Your task to perform on an android device: Go to wifi settings Image 0: 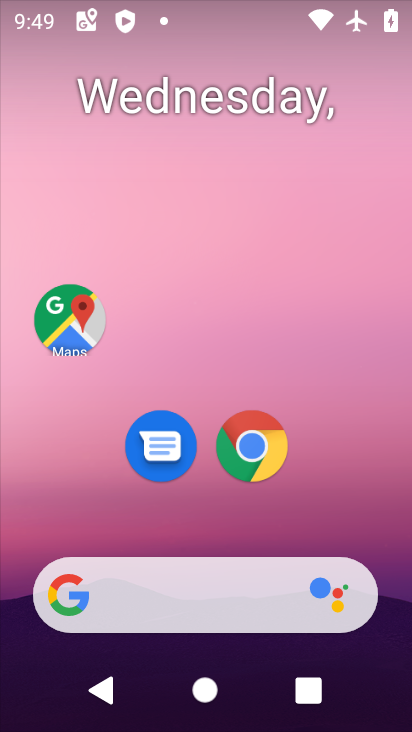
Step 0: press home button
Your task to perform on an android device: Go to wifi settings Image 1: 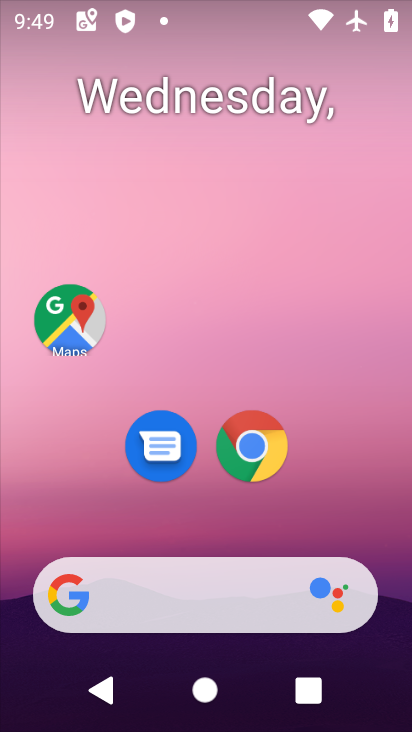
Step 1: drag from (163, 604) to (352, 63)
Your task to perform on an android device: Go to wifi settings Image 2: 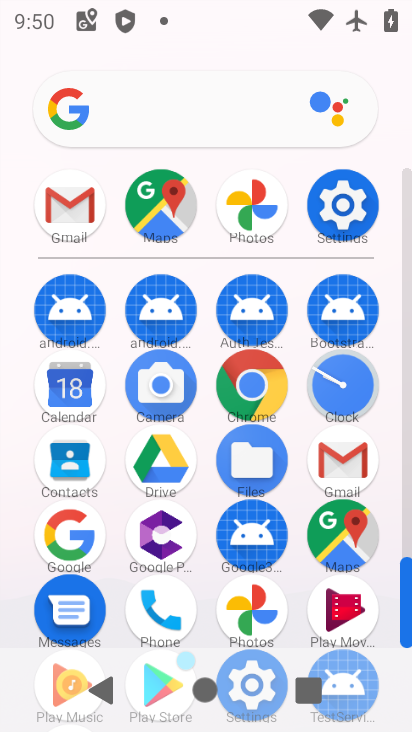
Step 2: click (340, 200)
Your task to perform on an android device: Go to wifi settings Image 3: 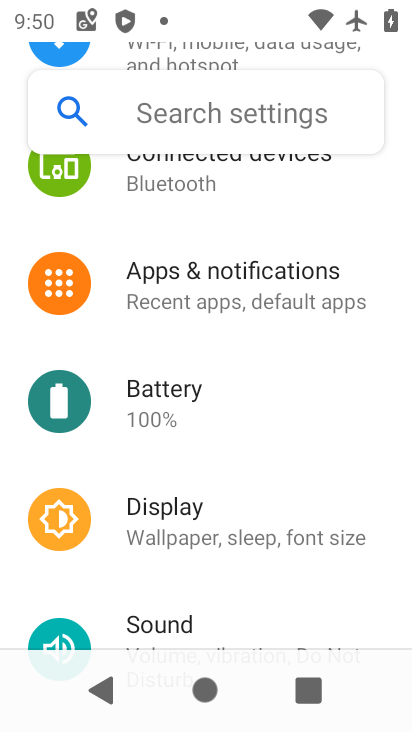
Step 3: drag from (330, 195) to (276, 595)
Your task to perform on an android device: Go to wifi settings Image 4: 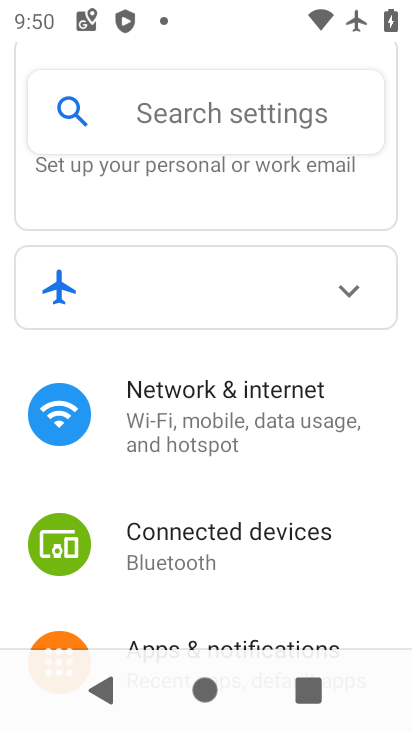
Step 4: click (242, 412)
Your task to perform on an android device: Go to wifi settings Image 5: 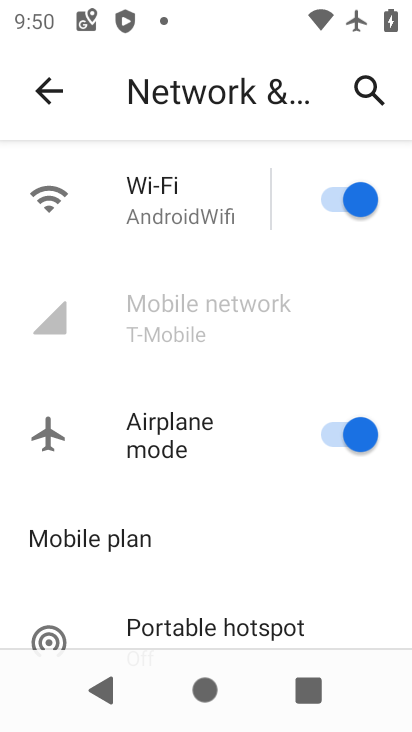
Step 5: click (162, 213)
Your task to perform on an android device: Go to wifi settings Image 6: 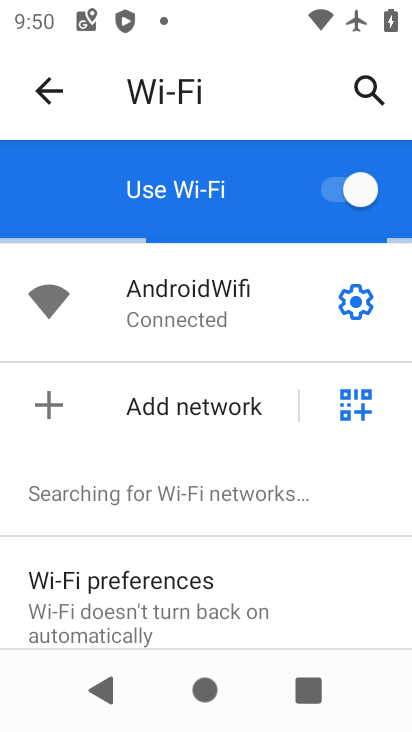
Step 6: task complete